Your task to perform on an android device: Open maps Image 0: 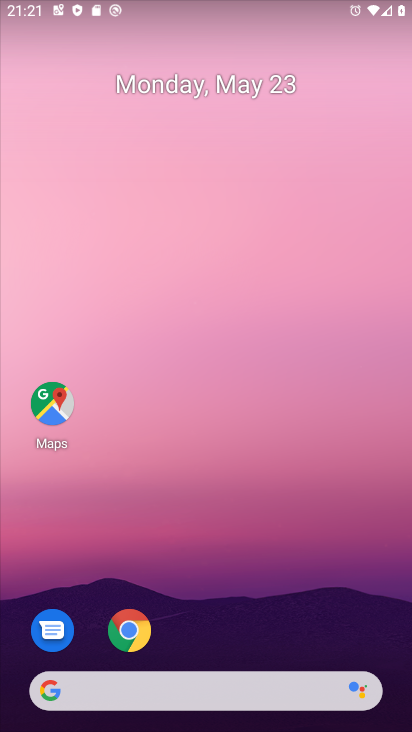
Step 0: click (56, 393)
Your task to perform on an android device: Open maps Image 1: 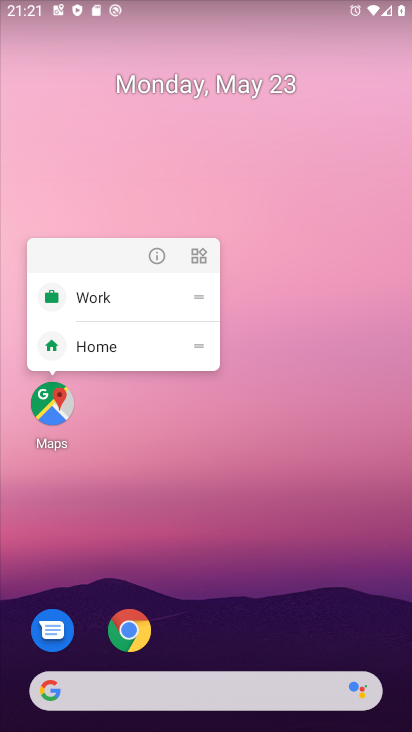
Step 1: click (58, 408)
Your task to perform on an android device: Open maps Image 2: 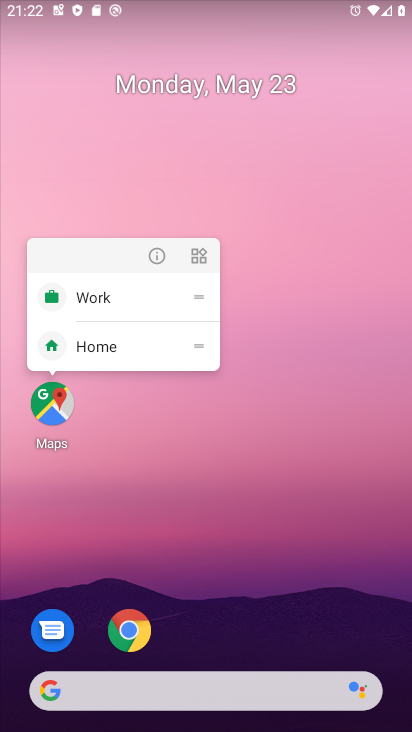
Step 2: click (44, 413)
Your task to perform on an android device: Open maps Image 3: 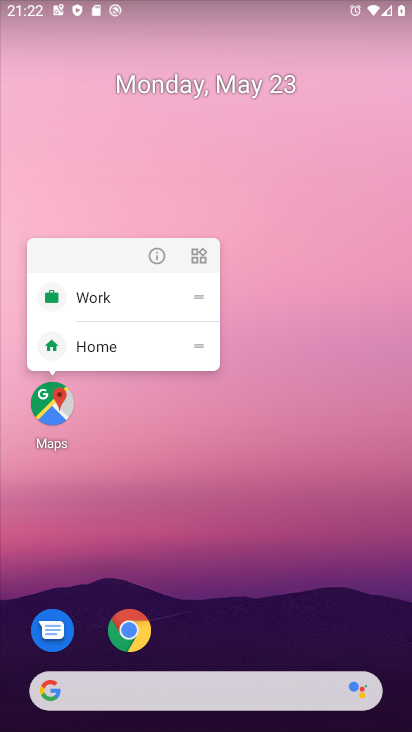
Step 3: click (45, 413)
Your task to perform on an android device: Open maps Image 4: 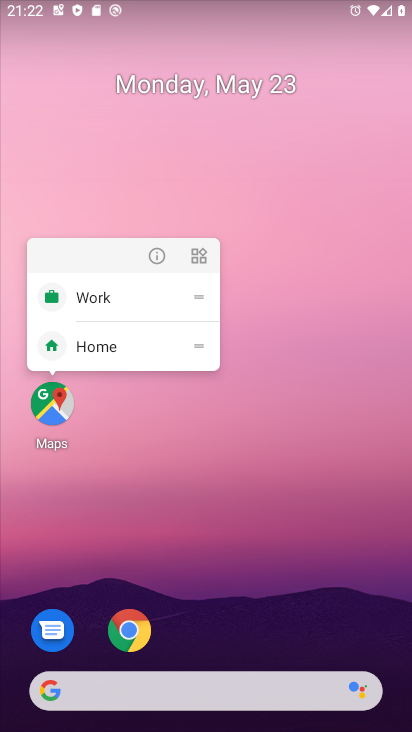
Step 4: click (45, 413)
Your task to perform on an android device: Open maps Image 5: 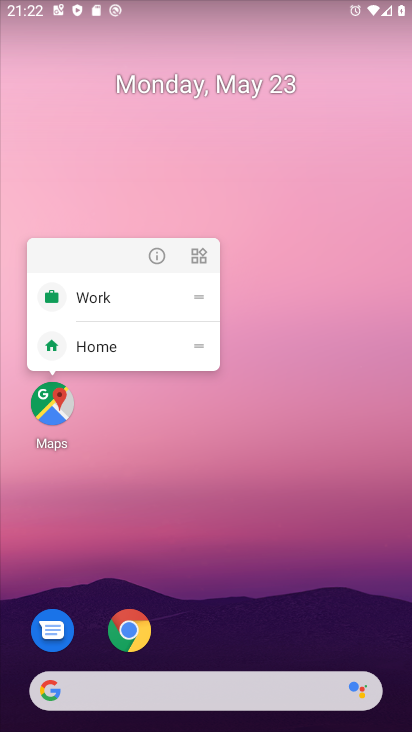
Step 5: click (45, 413)
Your task to perform on an android device: Open maps Image 6: 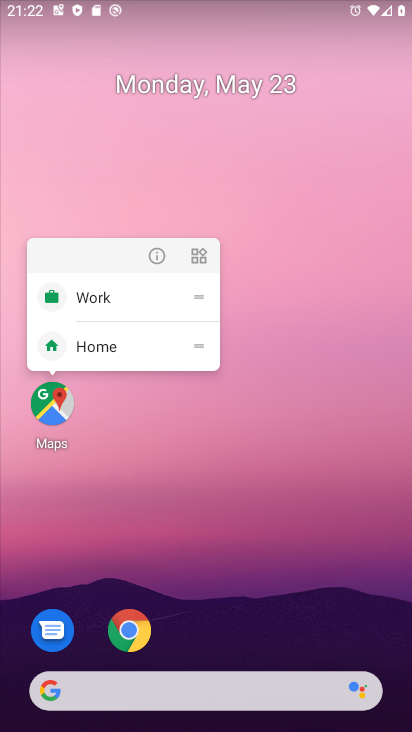
Step 6: click (59, 401)
Your task to perform on an android device: Open maps Image 7: 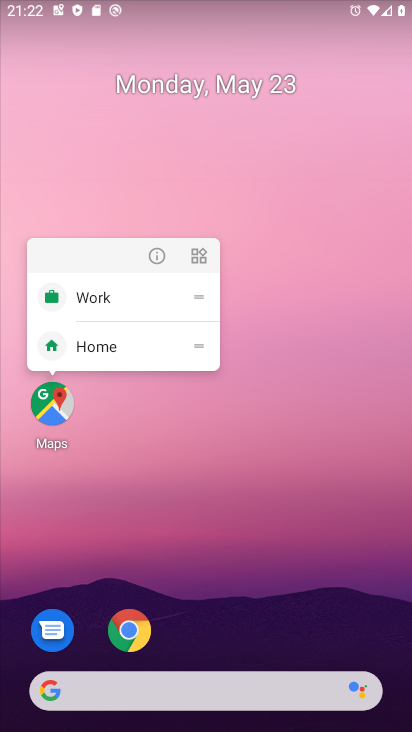
Step 7: click (36, 407)
Your task to perform on an android device: Open maps Image 8: 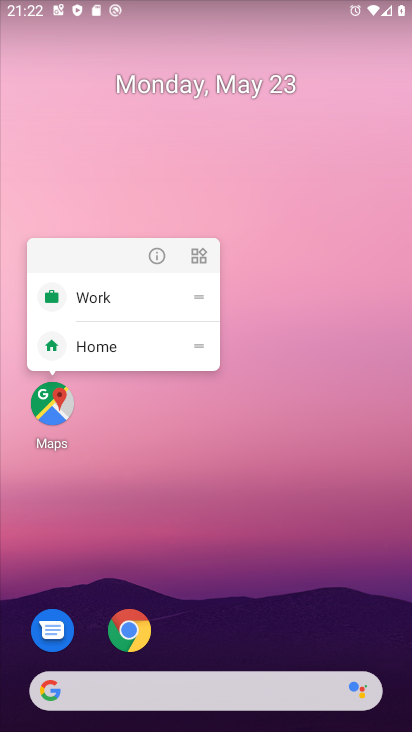
Step 8: click (48, 407)
Your task to perform on an android device: Open maps Image 9: 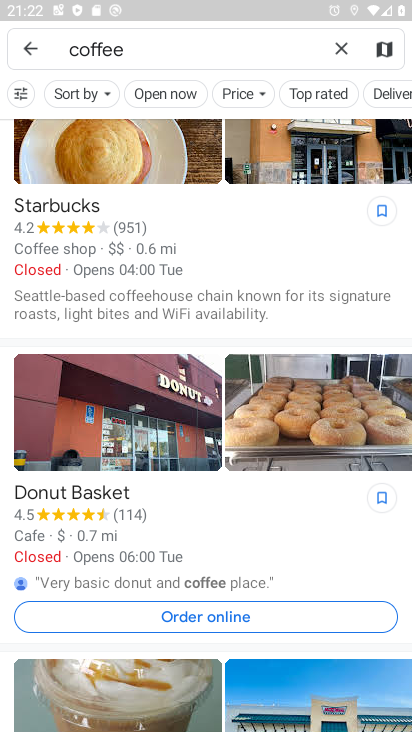
Step 9: click (337, 56)
Your task to perform on an android device: Open maps Image 10: 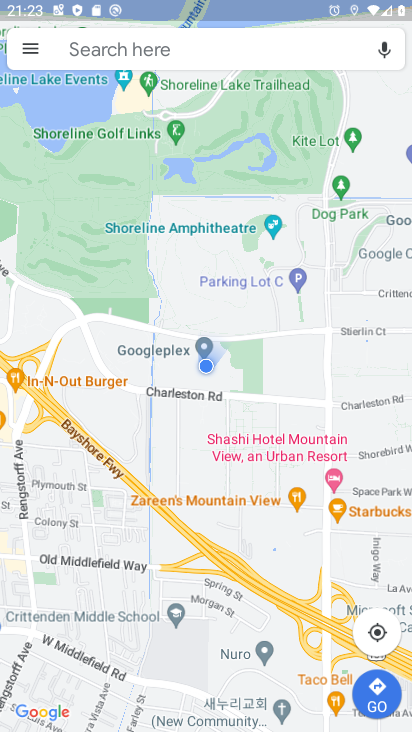
Step 10: task complete